Your task to perform on an android device: toggle javascript in the chrome app Image 0: 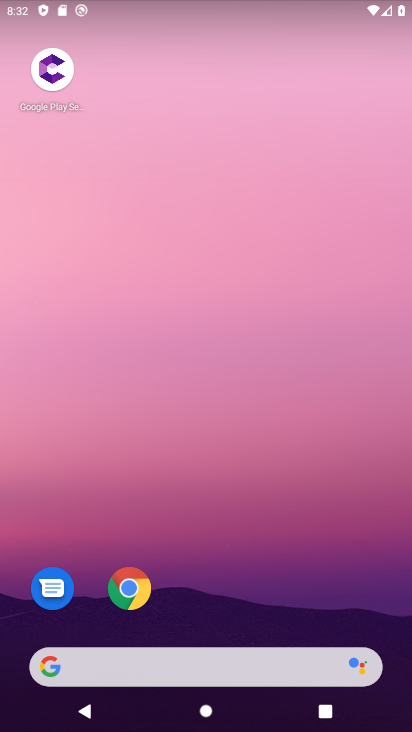
Step 0: click (132, 560)
Your task to perform on an android device: toggle javascript in the chrome app Image 1: 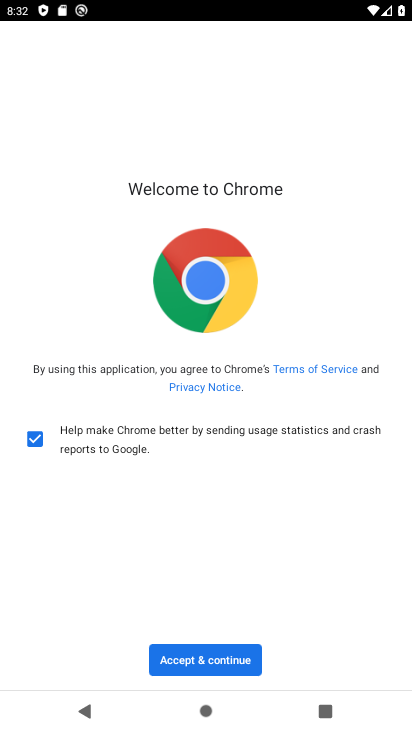
Step 1: click (202, 668)
Your task to perform on an android device: toggle javascript in the chrome app Image 2: 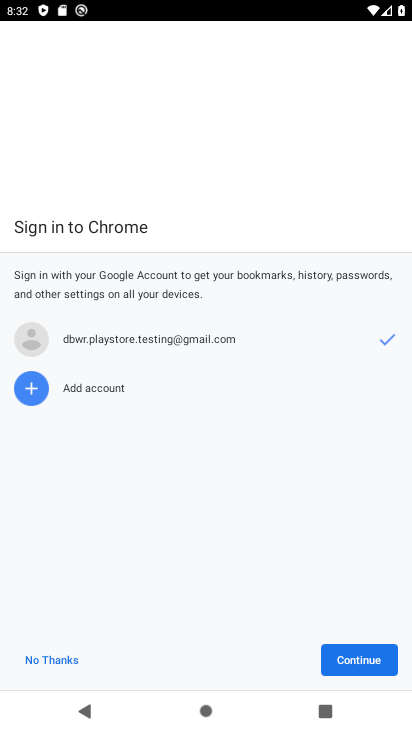
Step 2: click (336, 669)
Your task to perform on an android device: toggle javascript in the chrome app Image 3: 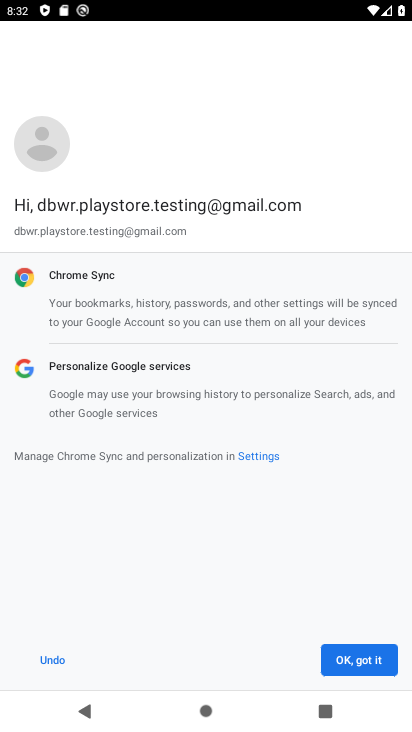
Step 3: click (336, 669)
Your task to perform on an android device: toggle javascript in the chrome app Image 4: 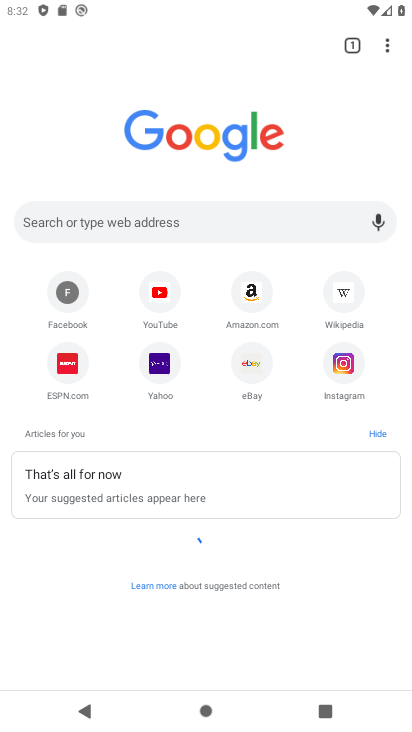
Step 4: click (384, 40)
Your task to perform on an android device: toggle javascript in the chrome app Image 5: 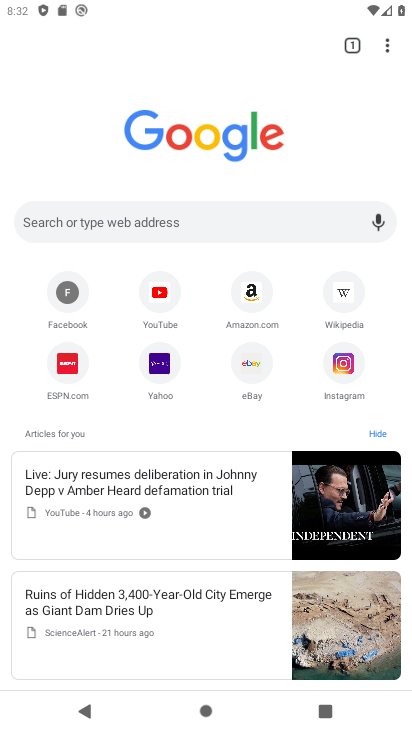
Step 5: click (373, 49)
Your task to perform on an android device: toggle javascript in the chrome app Image 6: 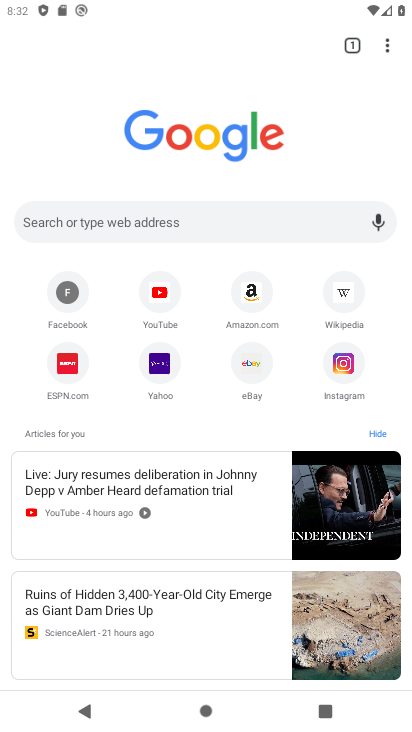
Step 6: click (388, 52)
Your task to perform on an android device: toggle javascript in the chrome app Image 7: 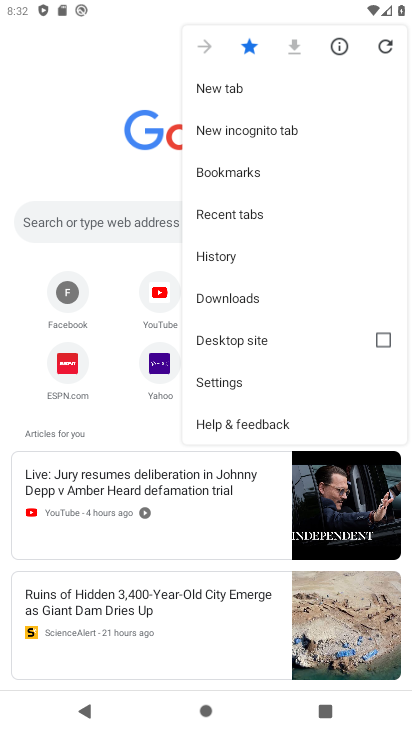
Step 7: click (213, 386)
Your task to perform on an android device: toggle javascript in the chrome app Image 8: 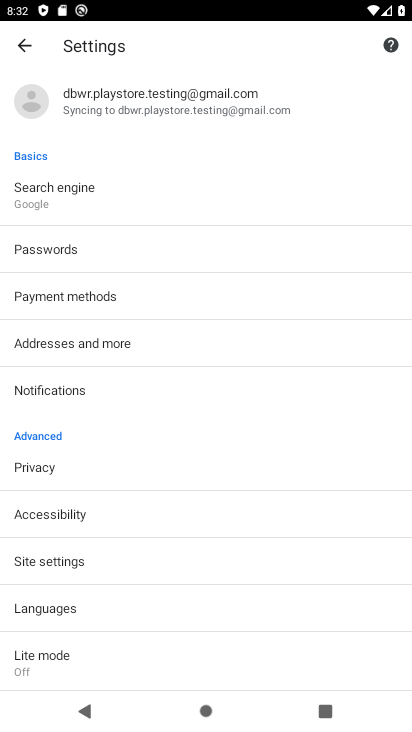
Step 8: click (157, 564)
Your task to perform on an android device: toggle javascript in the chrome app Image 9: 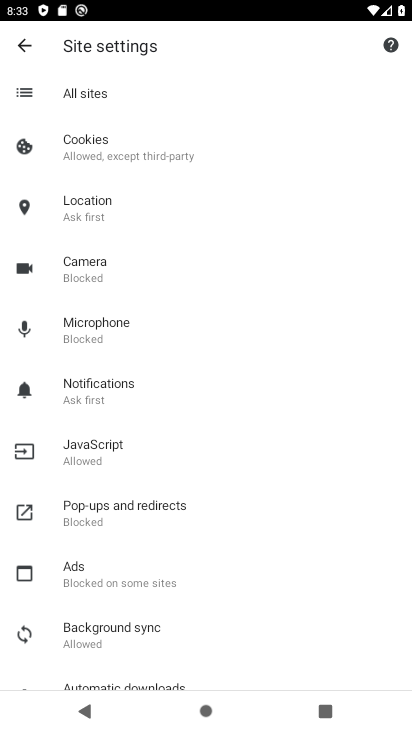
Step 9: click (102, 457)
Your task to perform on an android device: toggle javascript in the chrome app Image 10: 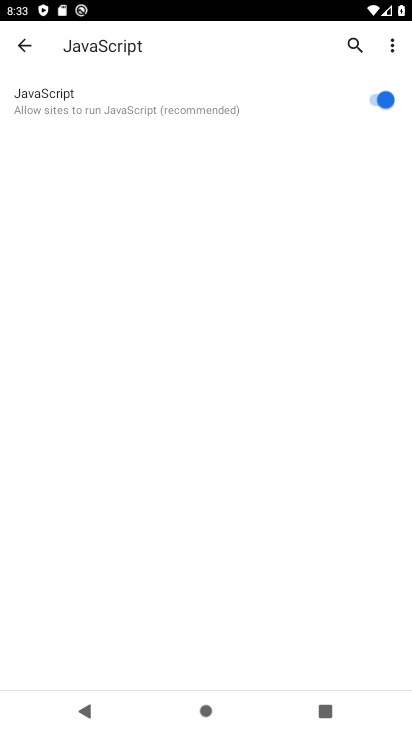
Step 10: click (376, 103)
Your task to perform on an android device: toggle javascript in the chrome app Image 11: 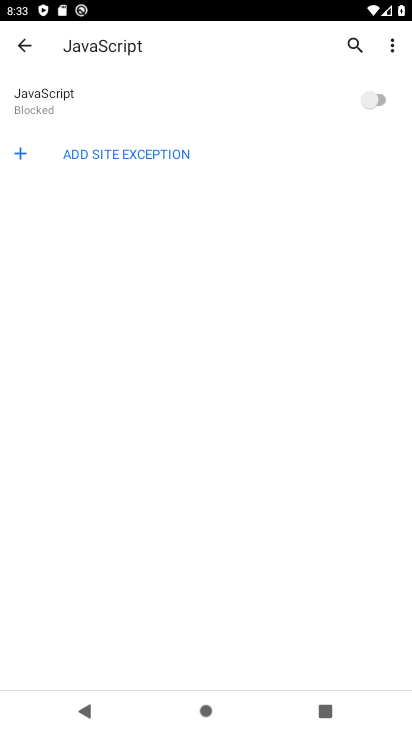
Step 11: task complete